Your task to perform on an android device: open chrome privacy settings Image 0: 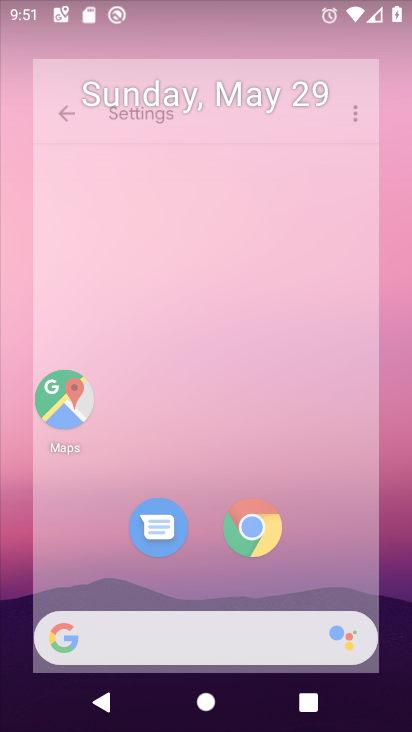
Step 0: press home button
Your task to perform on an android device: open chrome privacy settings Image 1: 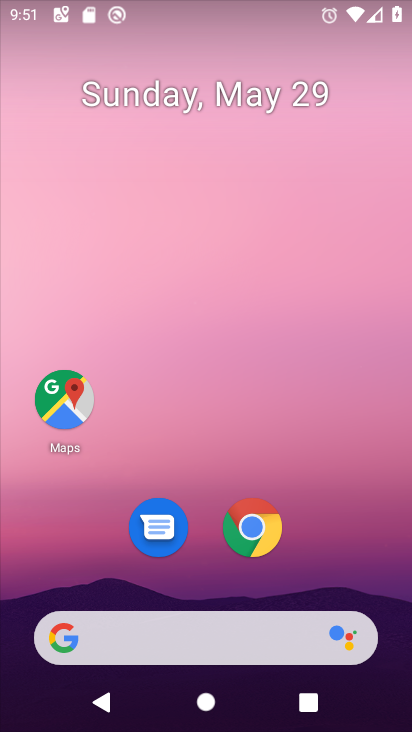
Step 1: drag from (213, 584) to (260, 2)
Your task to perform on an android device: open chrome privacy settings Image 2: 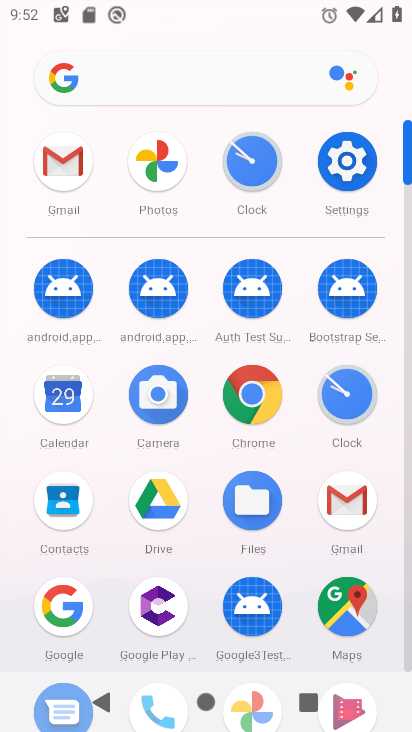
Step 2: click (346, 158)
Your task to perform on an android device: open chrome privacy settings Image 3: 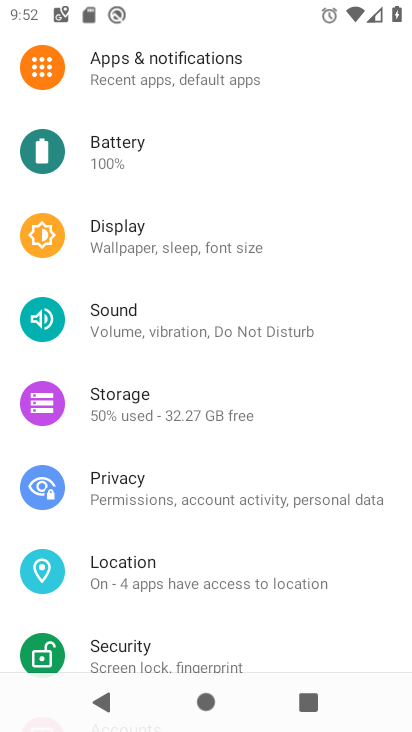
Step 3: click (163, 473)
Your task to perform on an android device: open chrome privacy settings Image 4: 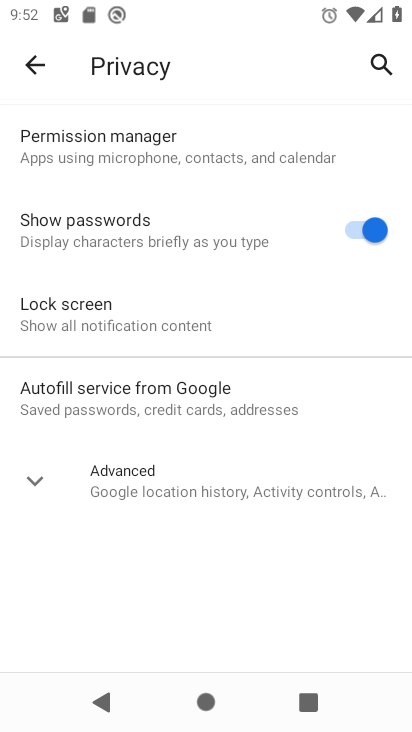
Step 4: click (35, 484)
Your task to perform on an android device: open chrome privacy settings Image 5: 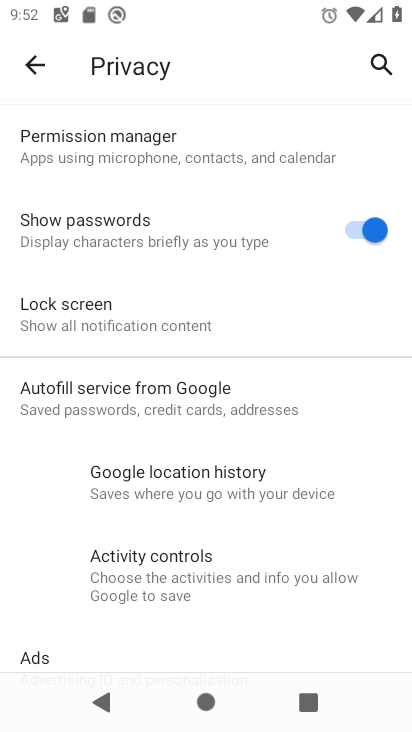
Step 5: task complete